Your task to perform on an android device: Go to Android settings Image 0: 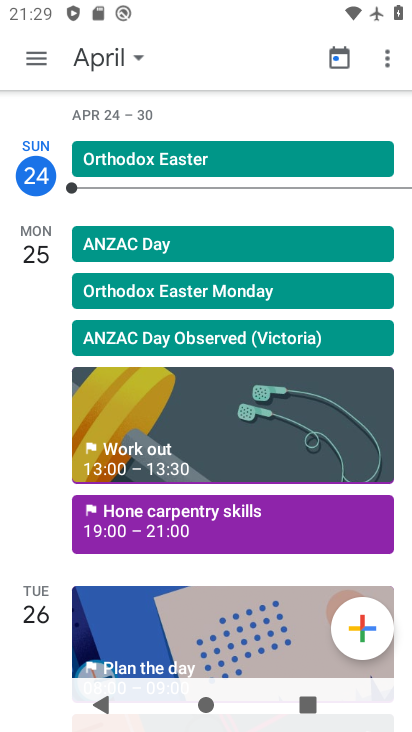
Step 0: press home button
Your task to perform on an android device: Go to Android settings Image 1: 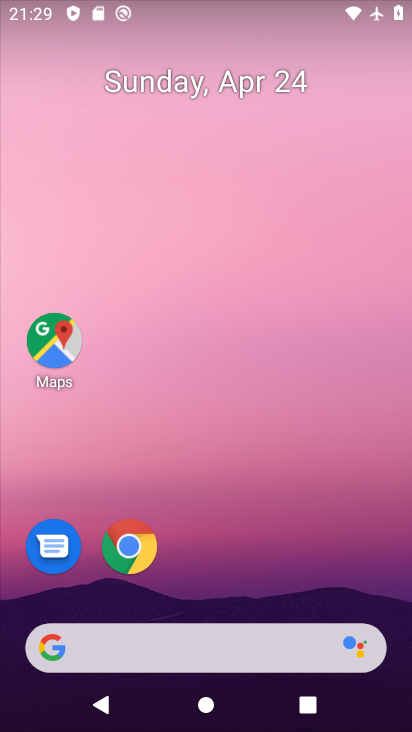
Step 1: drag from (277, 340) to (257, 116)
Your task to perform on an android device: Go to Android settings Image 2: 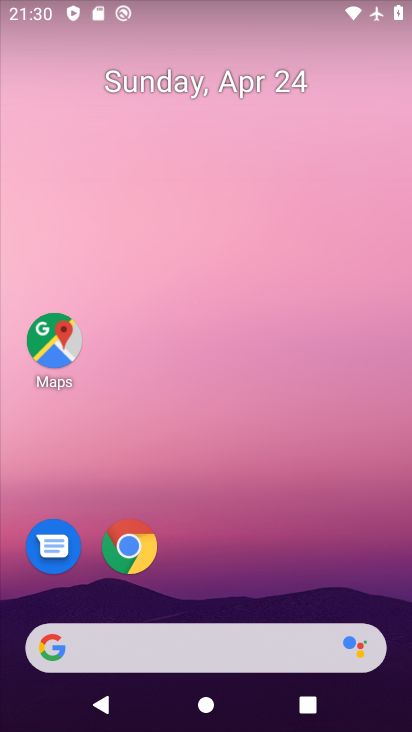
Step 2: drag from (225, 530) to (254, 209)
Your task to perform on an android device: Go to Android settings Image 3: 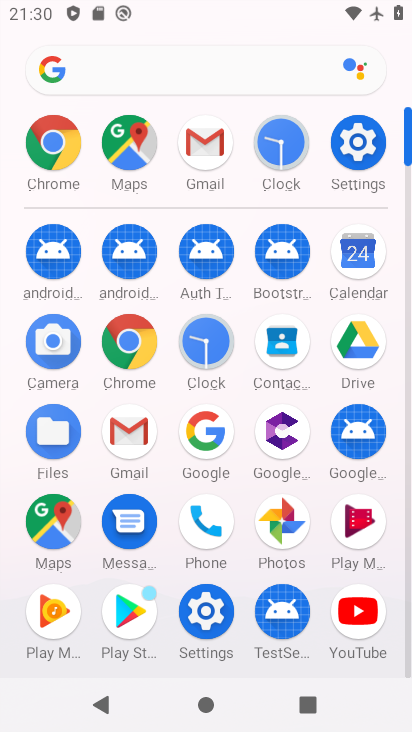
Step 3: click (354, 143)
Your task to perform on an android device: Go to Android settings Image 4: 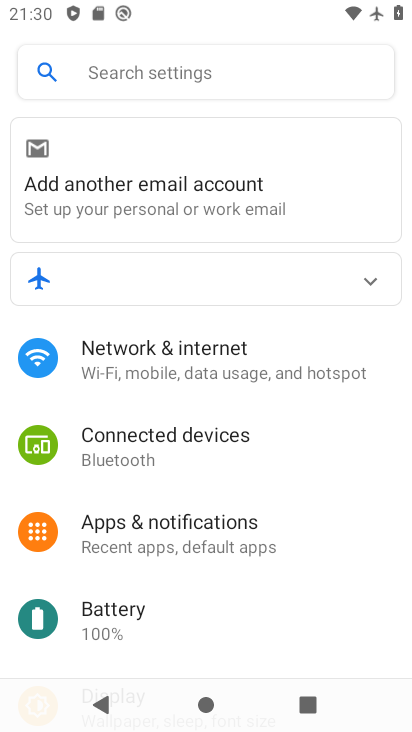
Step 4: drag from (228, 640) to (262, 78)
Your task to perform on an android device: Go to Android settings Image 5: 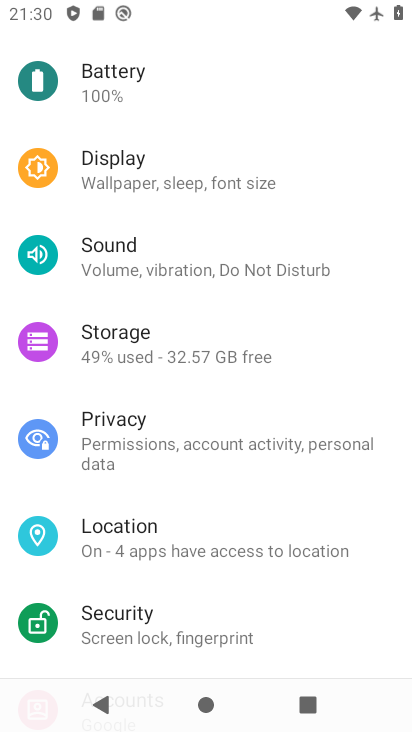
Step 5: drag from (214, 554) to (255, 99)
Your task to perform on an android device: Go to Android settings Image 6: 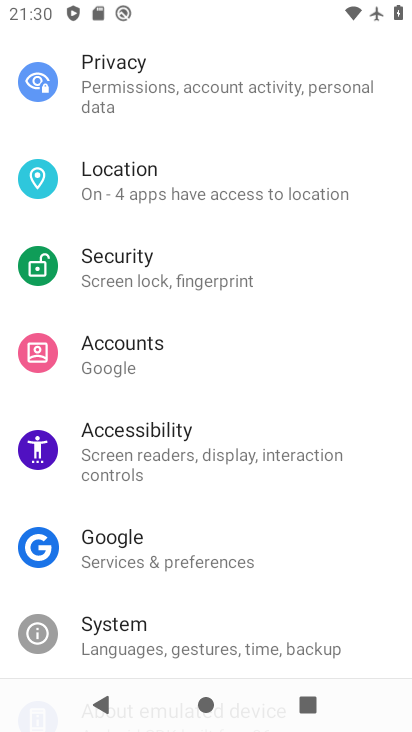
Step 6: drag from (203, 598) to (278, 93)
Your task to perform on an android device: Go to Android settings Image 7: 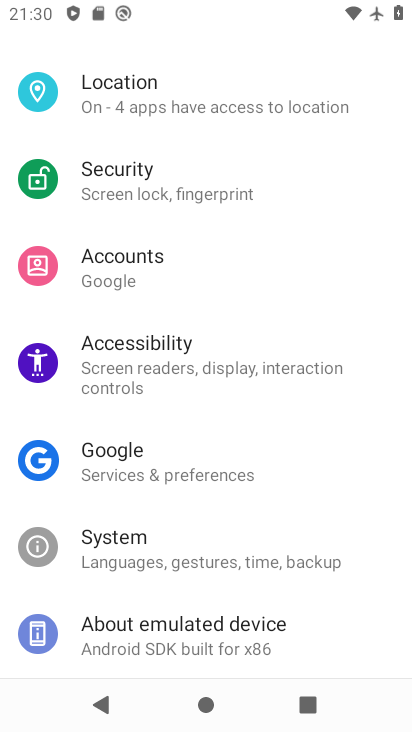
Step 7: click (237, 636)
Your task to perform on an android device: Go to Android settings Image 8: 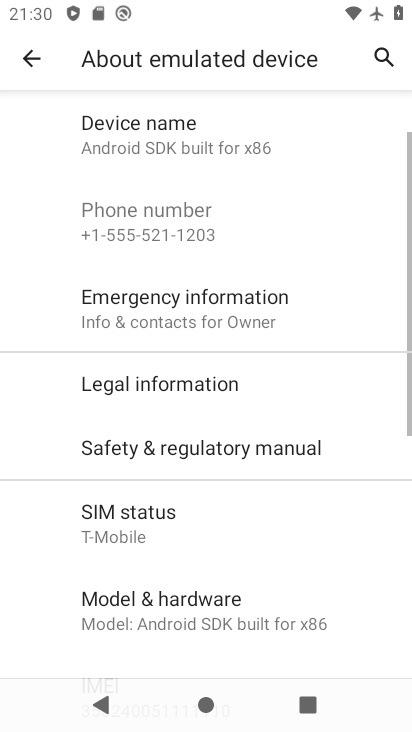
Step 8: drag from (224, 610) to (258, 98)
Your task to perform on an android device: Go to Android settings Image 9: 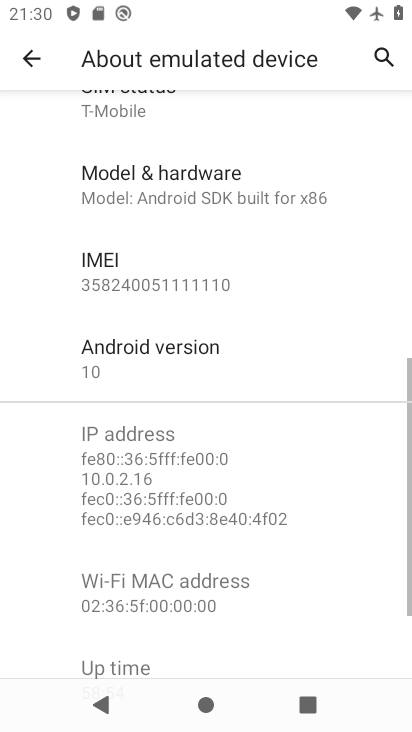
Step 9: click (155, 350)
Your task to perform on an android device: Go to Android settings Image 10: 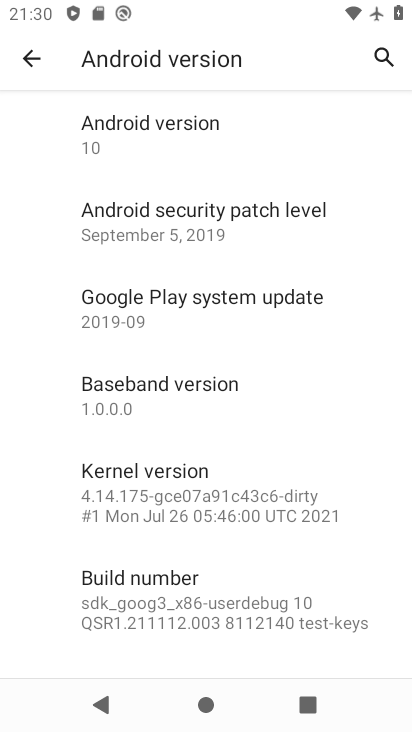
Step 10: task complete